Your task to perform on an android device: manage bookmarks in the chrome app Image 0: 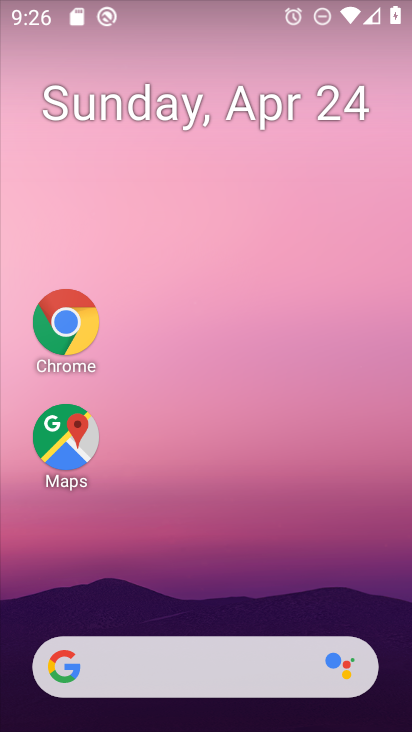
Step 0: click (74, 322)
Your task to perform on an android device: manage bookmarks in the chrome app Image 1: 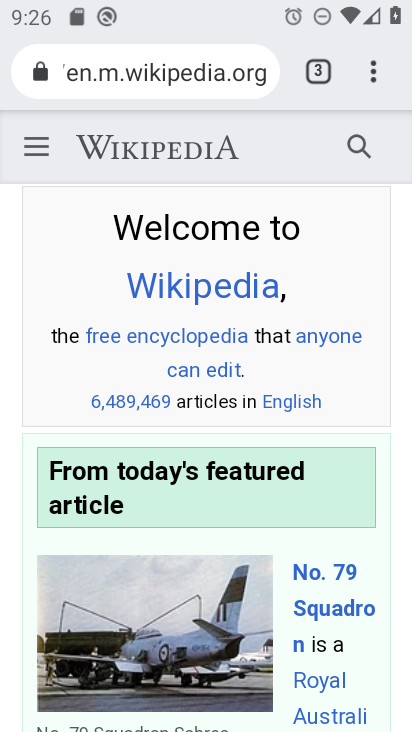
Step 1: click (371, 65)
Your task to perform on an android device: manage bookmarks in the chrome app Image 2: 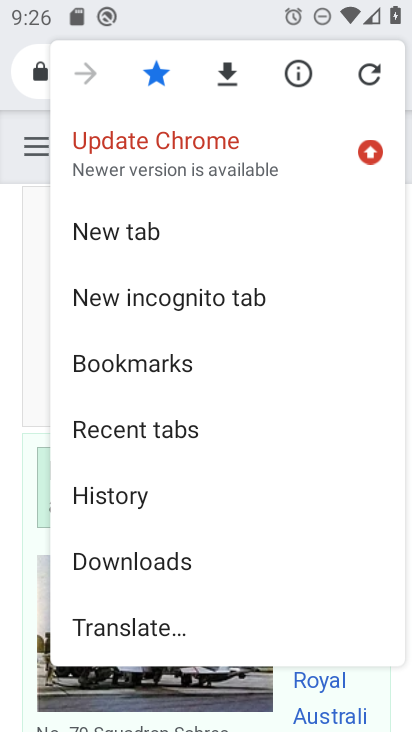
Step 2: click (134, 354)
Your task to perform on an android device: manage bookmarks in the chrome app Image 3: 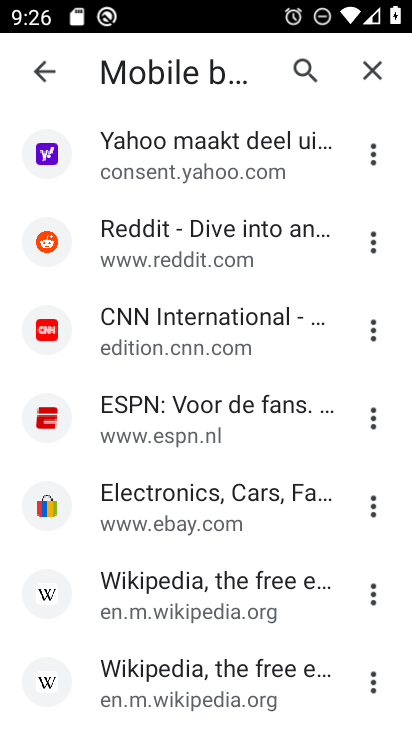
Step 3: click (370, 152)
Your task to perform on an android device: manage bookmarks in the chrome app Image 4: 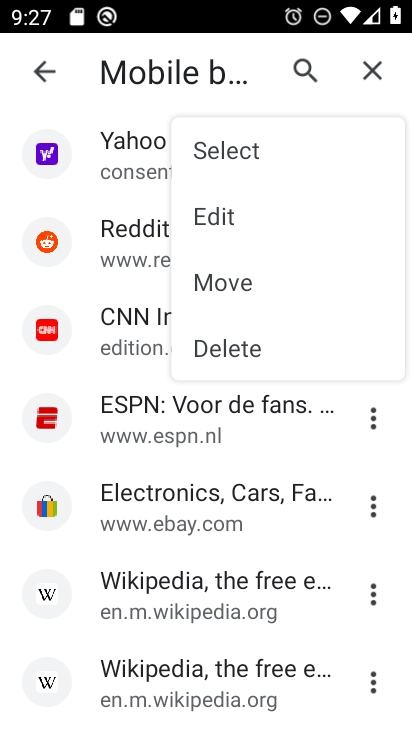
Step 4: click (216, 216)
Your task to perform on an android device: manage bookmarks in the chrome app Image 5: 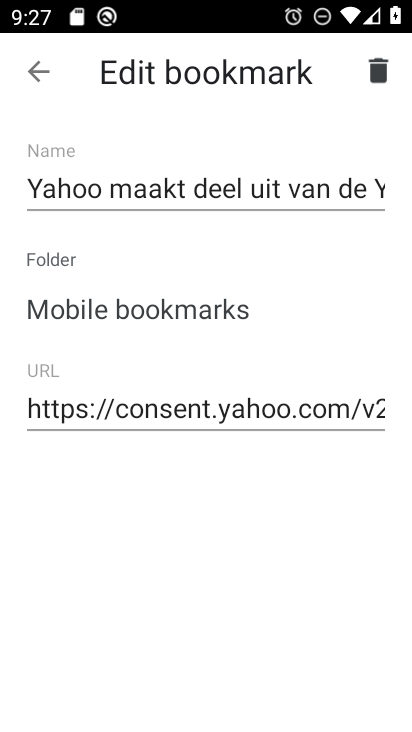
Step 5: task complete